Your task to perform on an android device: Show me popular videos on Youtube Image 0: 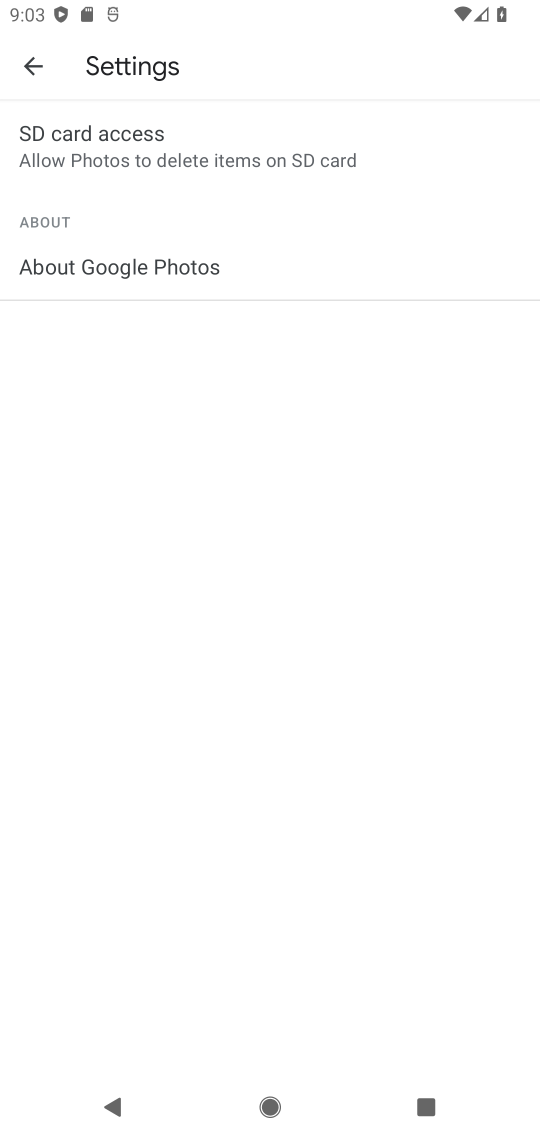
Step 0: press back button
Your task to perform on an android device: Show me popular videos on Youtube Image 1: 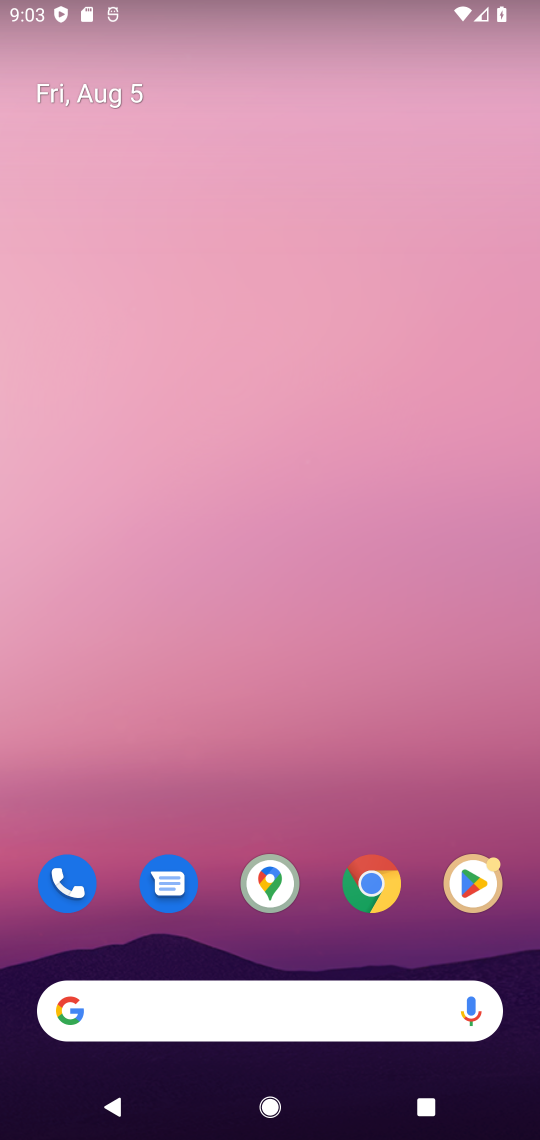
Step 1: drag from (234, 912) to (311, 121)
Your task to perform on an android device: Show me popular videos on Youtube Image 2: 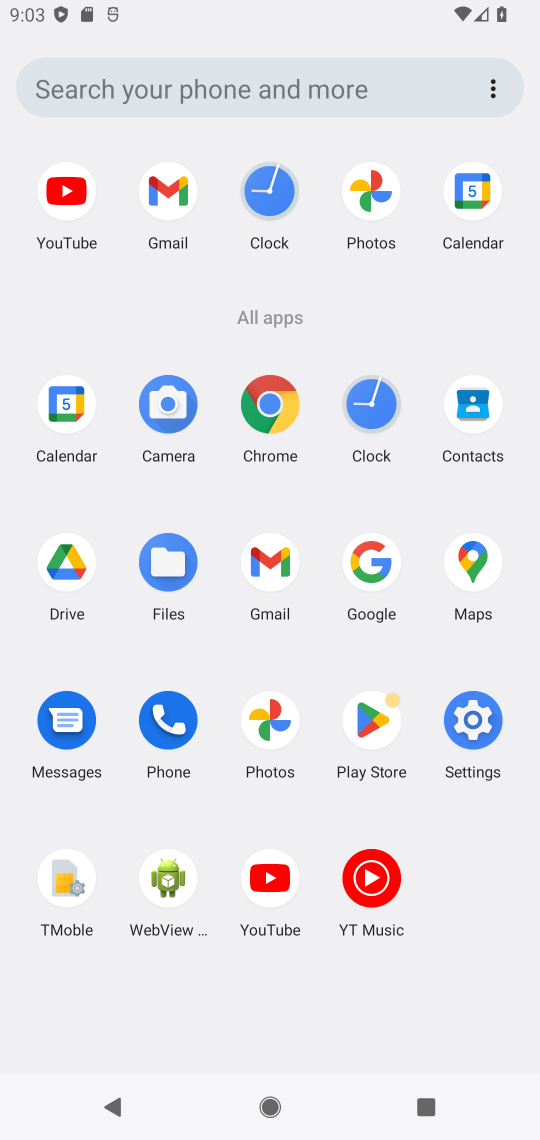
Step 2: click (266, 883)
Your task to perform on an android device: Show me popular videos on Youtube Image 3: 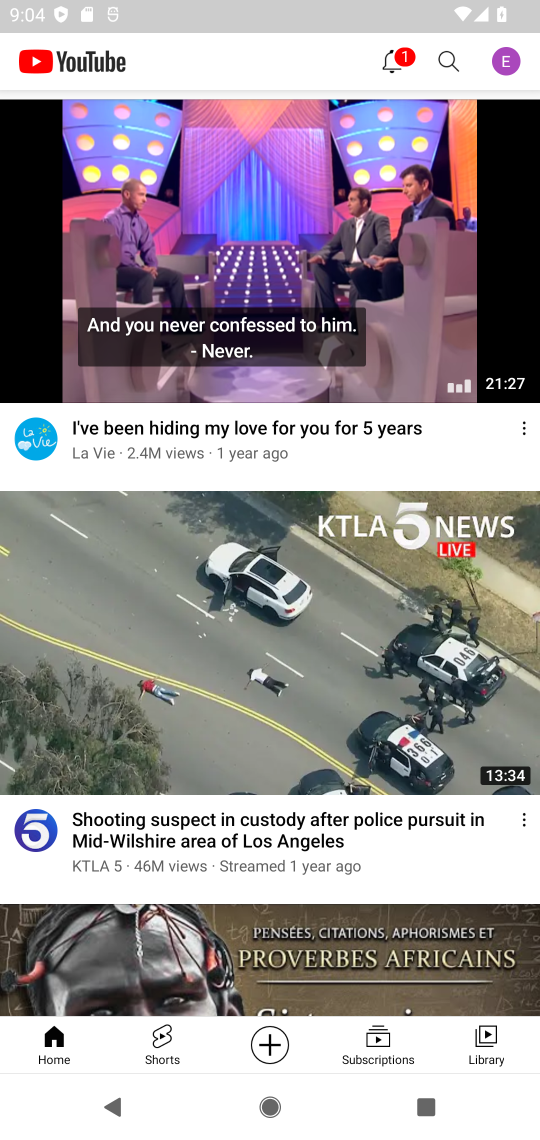
Step 3: drag from (278, 558) to (294, 778)
Your task to perform on an android device: Show me popular videos on Youtube Image 4: 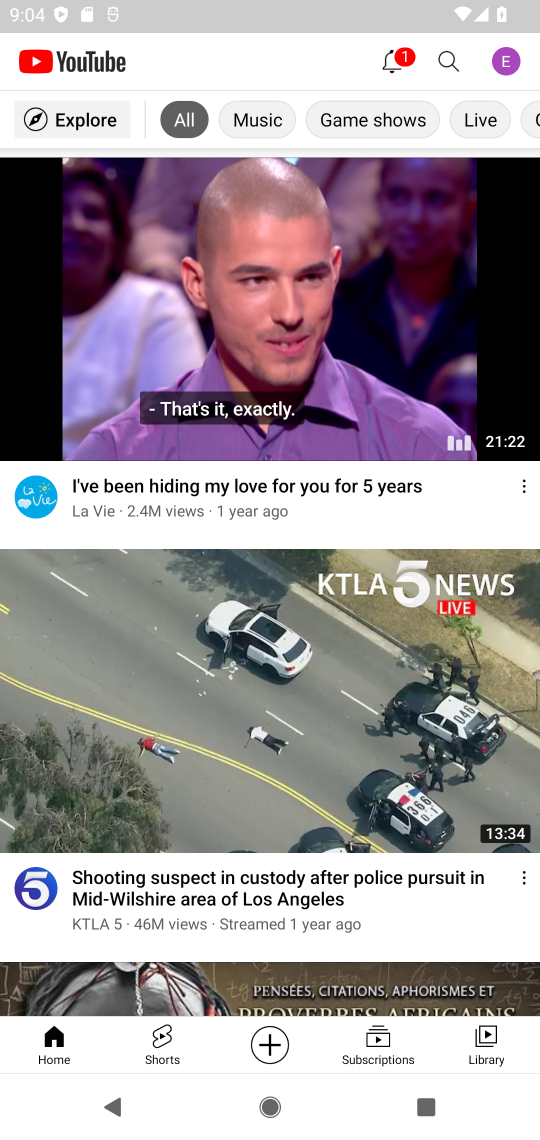
Step 4: click (80, 132)
Your task to perform on an android device: Show me popular videos on Youtube Image 5: 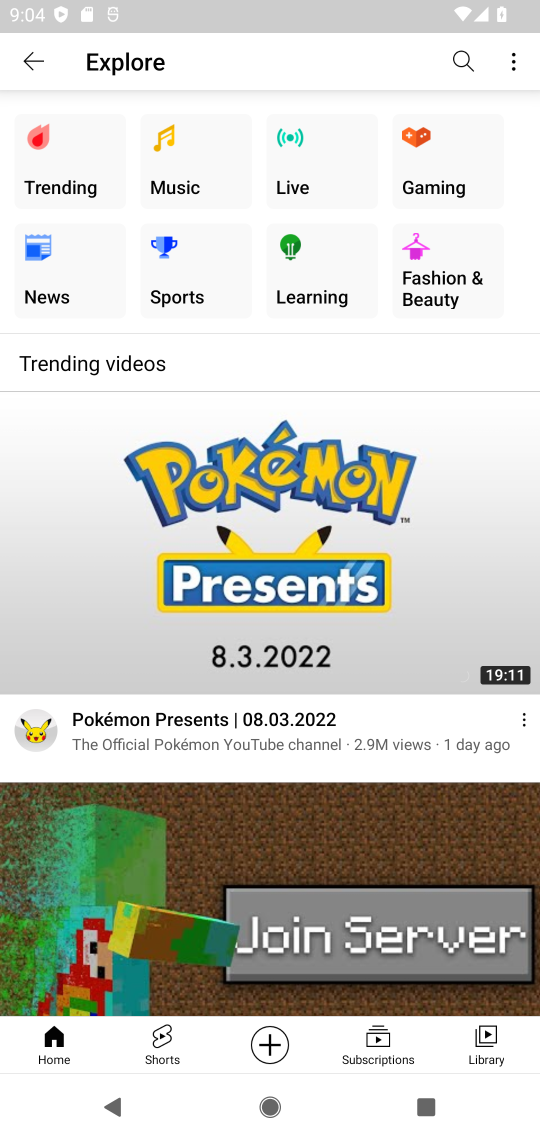
Step 5: click (64, 149)
Your task to perform on an android device: Show me popular videos on Youtube Image 6: 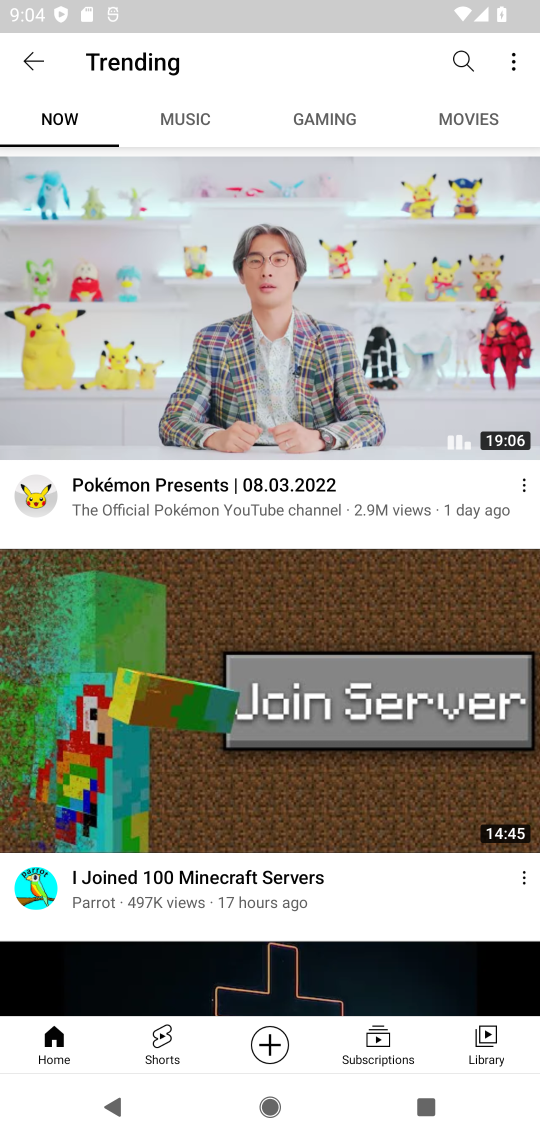
Step 6: task complete